Your task to perform on an android device: Open Chrome and go to settings Image 0: 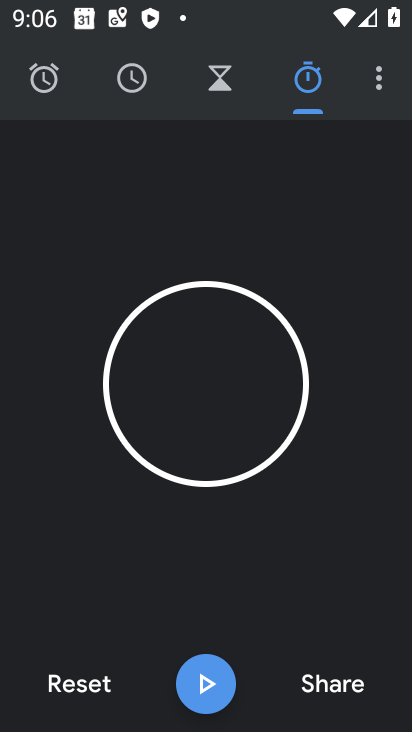
Step 0: press back button
Your task to perform on an android device: Open Chrome and go to settings Image 1: 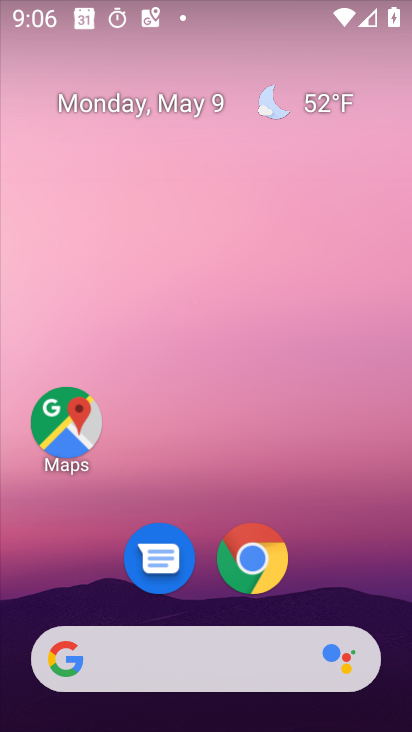
Step 1: click (271, 580)
Your task to perform on an android device: Open Chrome and go to settings Image 2: 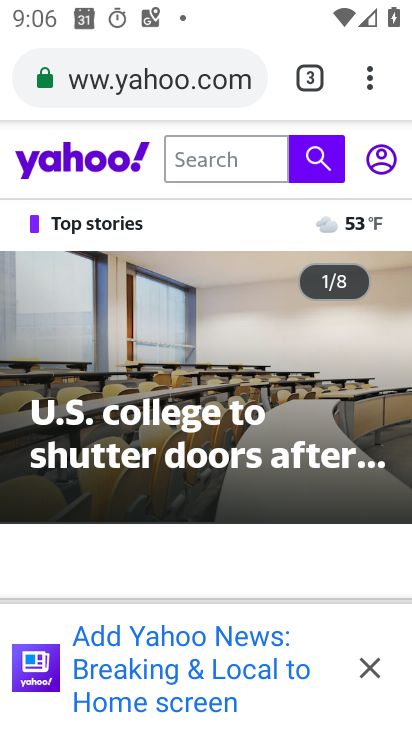
Step 2: task complete